Your task to perform on an android device: find which apps use the phone's location Image 0: 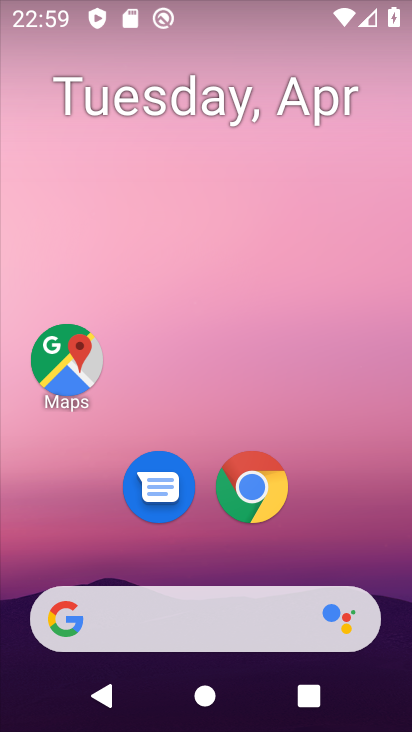
Step 0: drag from (205, 480) to (153, 85)
Your task to perform on an android device: find which apps use the phone's location Image 1: 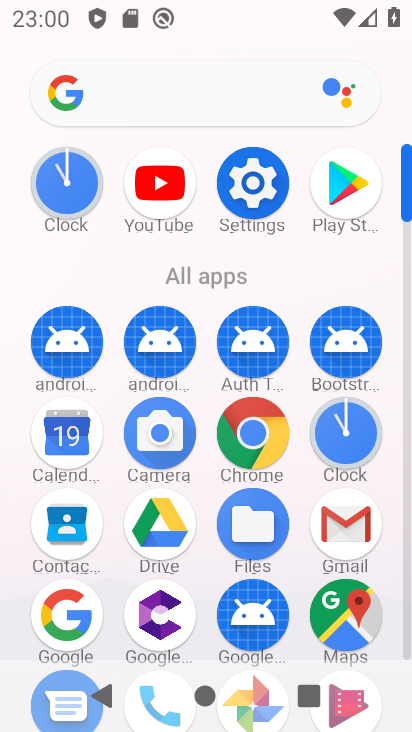
Step 1: click (256, 184)
Your task to perform on an android device: find which apps use the phone's location Image 2: 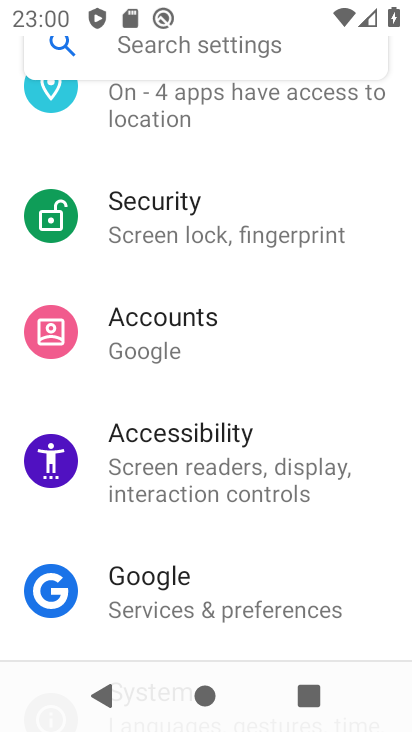
Step 2: drag from (164, 378) to (96, 641)
Your task to perform on an android device: find which apps use the phone's location Image 3: 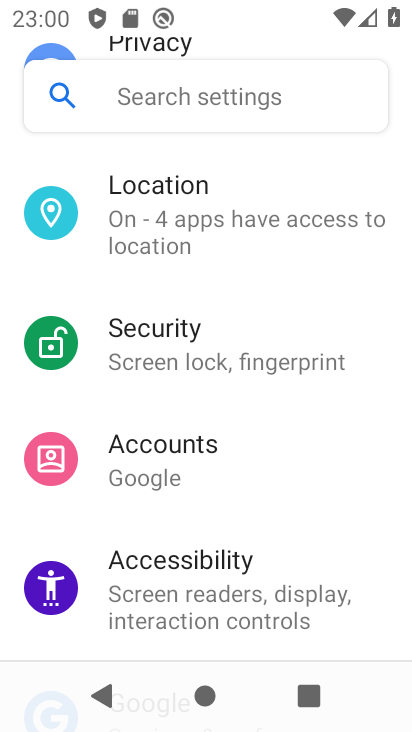
Step 3: click (190, 222)
Your task to perform on an android device: find which apps use the phone's location Image 4: 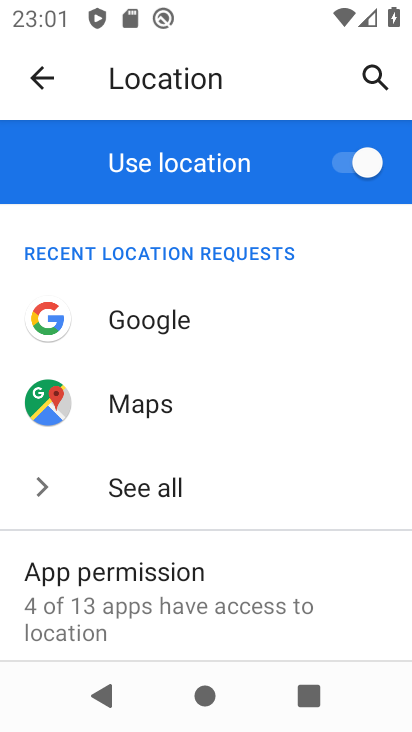
Step 4: click (163, 589)
Your task to perform on an android device: find which apps use the phone's location Image 5: 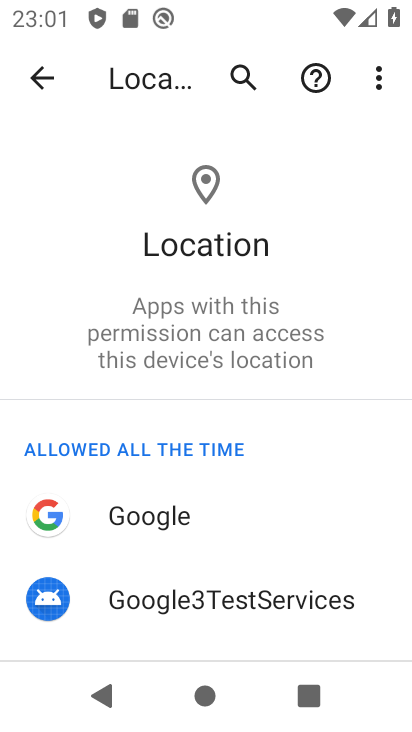
Step 5: task complete